Your task to perform on an android device: check google app version Image 0: 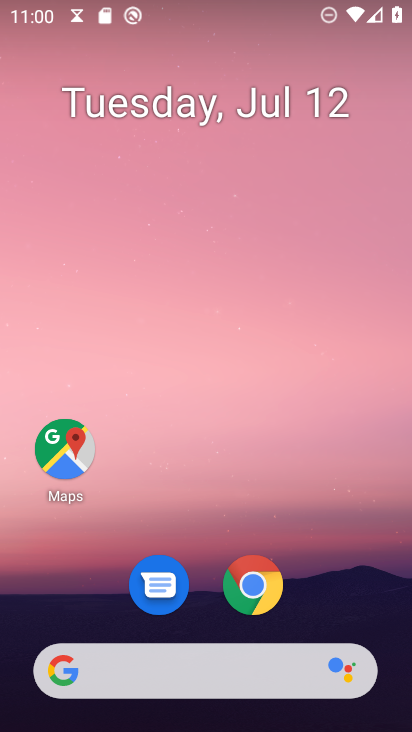
Step 0: drag from (224, 692) to (241, 5)
Your task to perform on an android device: check google app version Image 1: 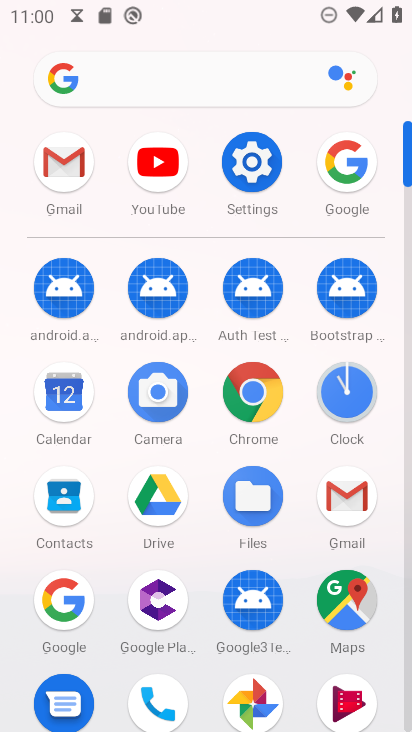
Step 1: click (69, 598)
Your task to perform on an android device: check google app version Image 2: 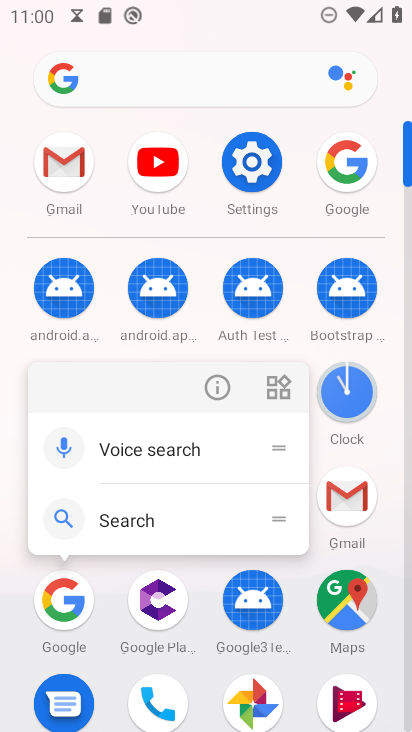
Step 2: click (218, 397)
Your task to perform on an android device: check google app version Image 3: 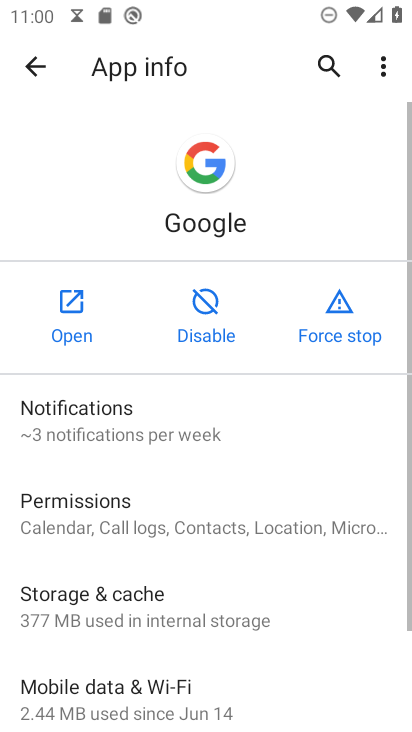
Step 3: drag from (201, 676) to (323, 41)
Your task to perform on an android device: check google app version Image 4: 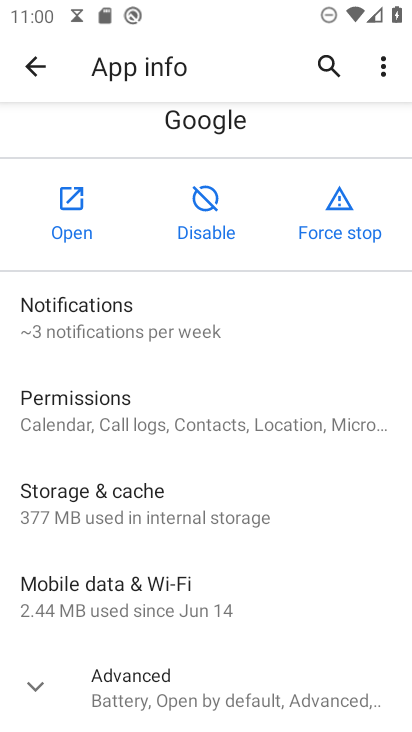
Step 4: click (142, 686)
Your task to perform on an android device: check google app version Image 5: 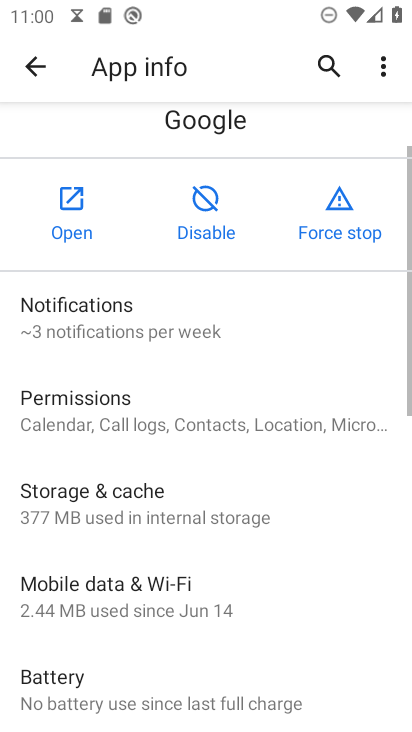
Step 5: task complete